Your task to perform on an android device: allow notifications from all sites in the chrome app Image 0: 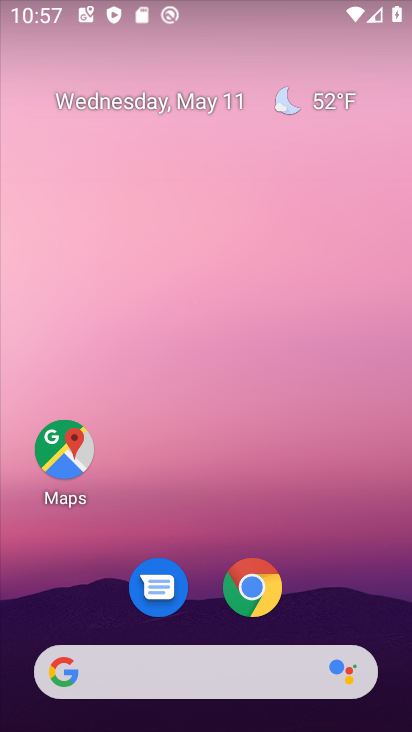
Step 0: drag from (270, 688) to (322, 262)
Your task to perform on an android device: allow notifications from all sites in the chrome app Image 1: 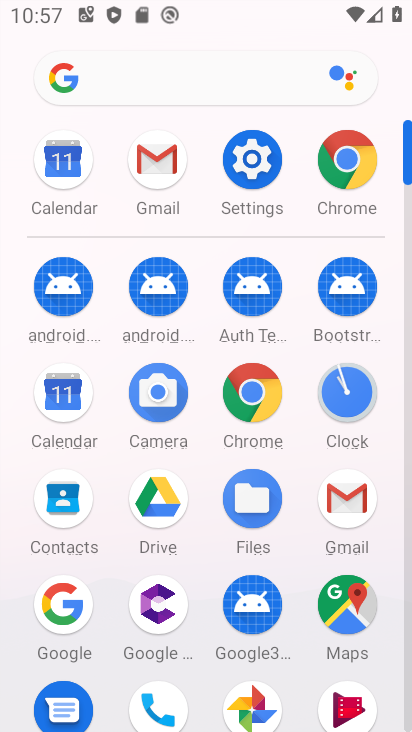
Step 1: click (334, 180)
Your task to perform on an android device: allow notifications from all sites in the chrome app Image 2: 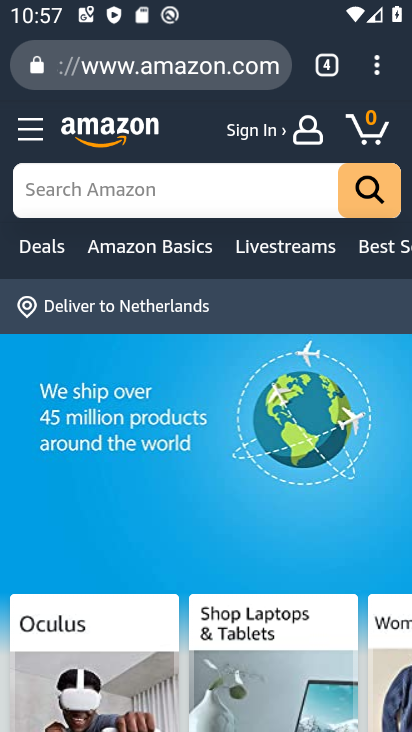
Step 2: click (373, 89)
Your task to perform on an android device: allow notifications from all sites in the chrome app Image 3: 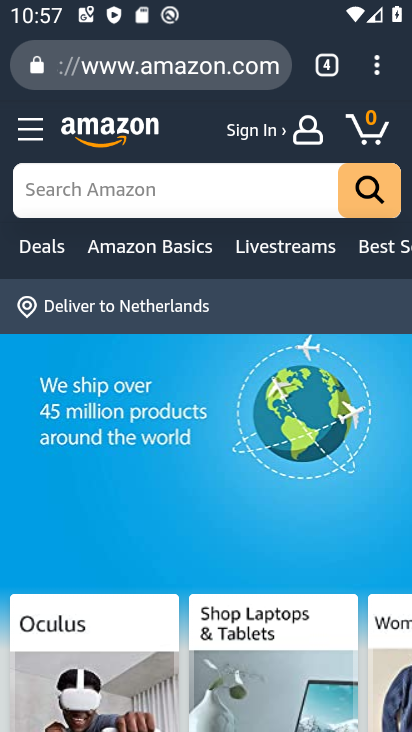
Step 3: click (373, 76)
Your task to perform on an android device: allow notifications from all sites in the chrome app Image 4: 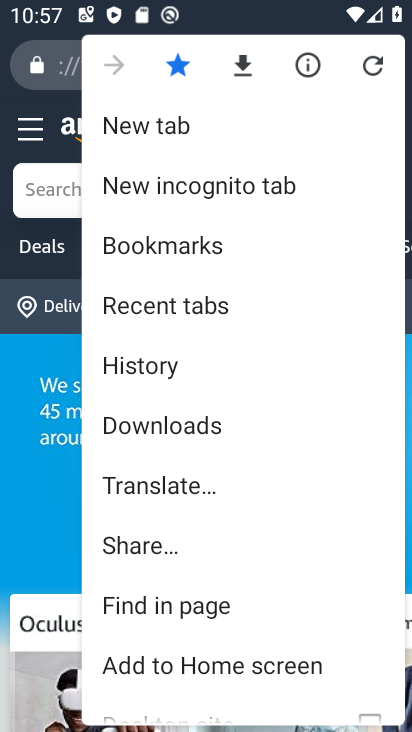
Step 4: drag from (154, 607) to (192, 388)
Your task to perform on an android device: allow notifications from all sites in the chrome app Image 5: 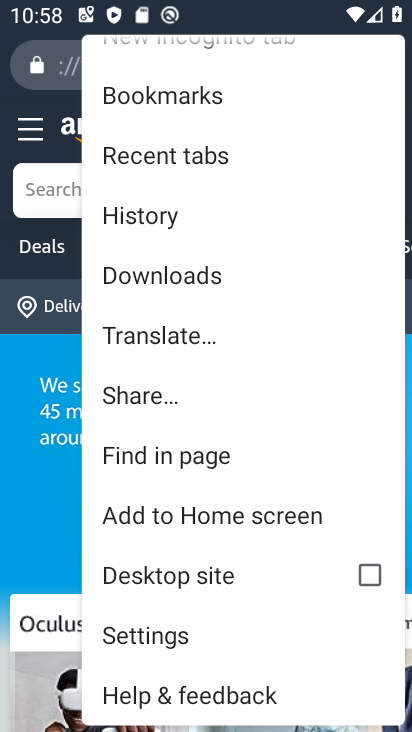
Step 5: click (209, 631)
Your task to perform on an android device: allow notifications from all sites in the chrome app Image 6: 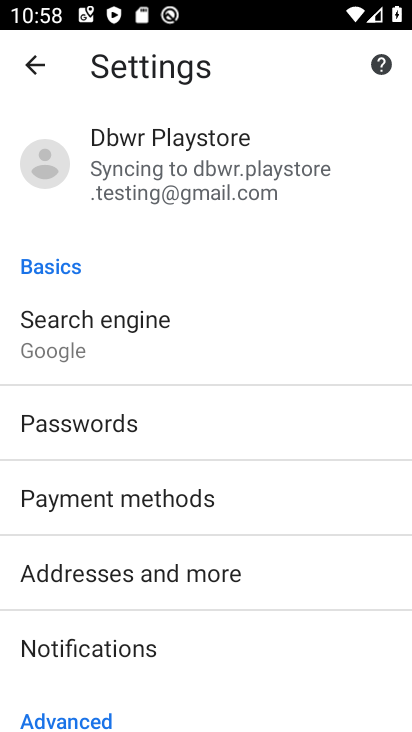
Step 6: click (127, 633)
Your task to perform on an android device: allow notifications from all sites in the chrome app Image 7: 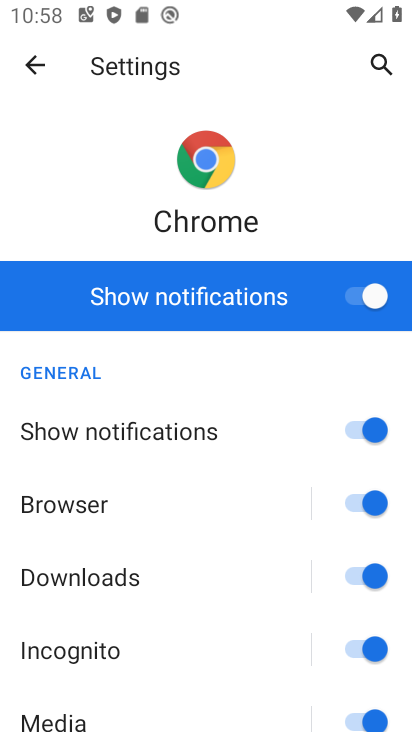
Step 7: task complete